Your task to perform on an android device: Open the Play Movies app and select the watchlist tab. Image 0: 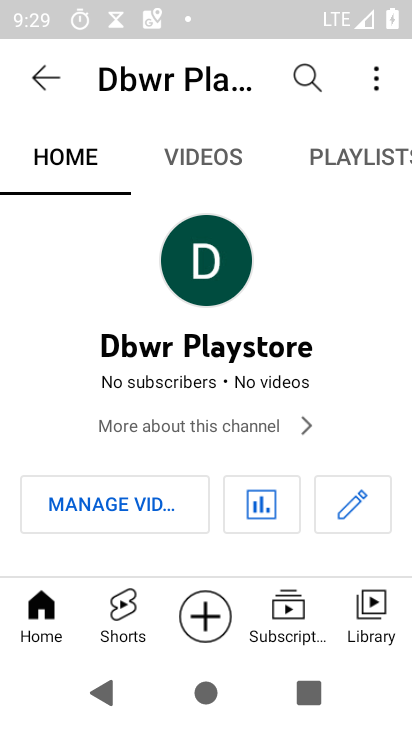
Step 0: press home button
Your task to perform on an android device: Open the Play Movies app and select the watchlist tab. Image 1: 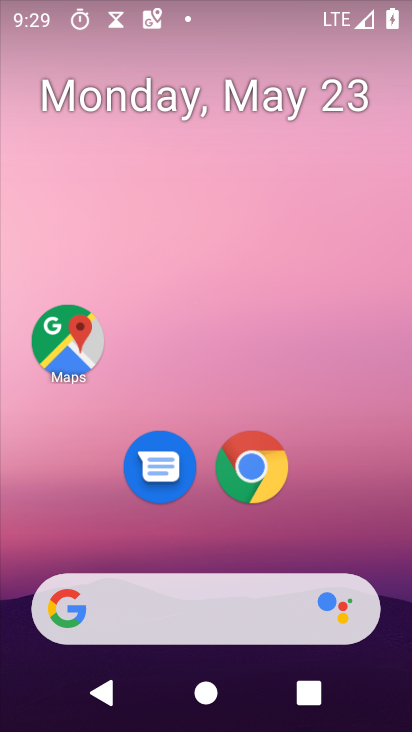
Step 1: drag from (286, 458) to (241, 63)
Your task to perform on an android device: Open the Play Movies app and select the watchlist tab. Image 2: 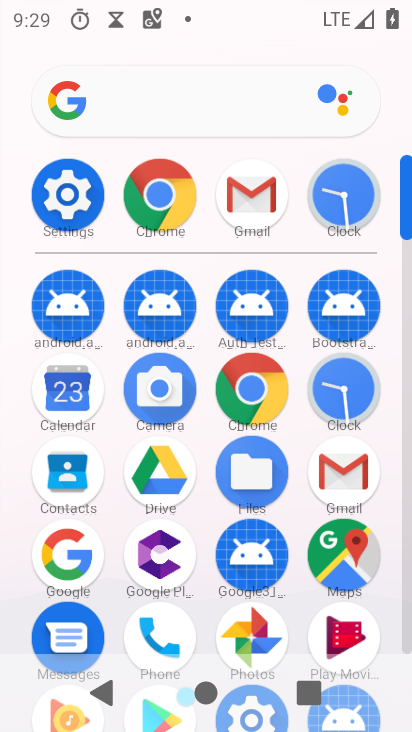
Step 2: click (349, 637)
Your task to perform on an android device: Open the Play Movies app and select the watchlist tab. Image 3: 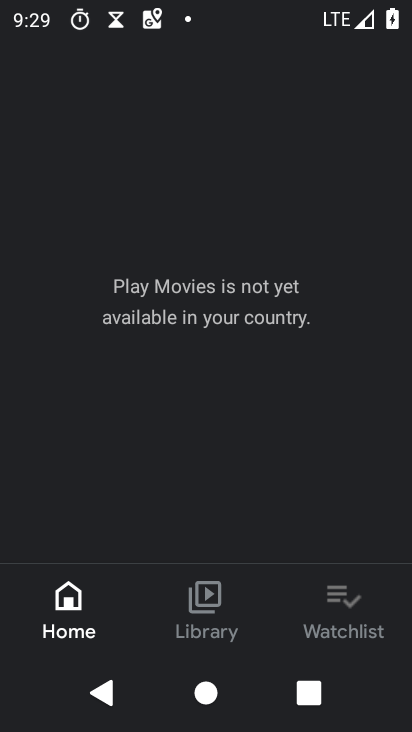
Step 3: click (357, 612)
Your task to perform on an android device: Open the Play Movies app and select the watchlist tab. Image 4: 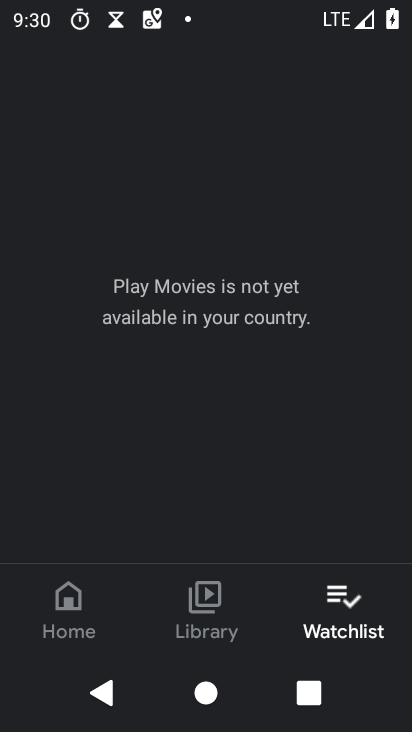
Step 4: task complete